Your task to perform on an android device: Search for "razer nari" on costco, select the first entry, and add it to the cart. Image 0: 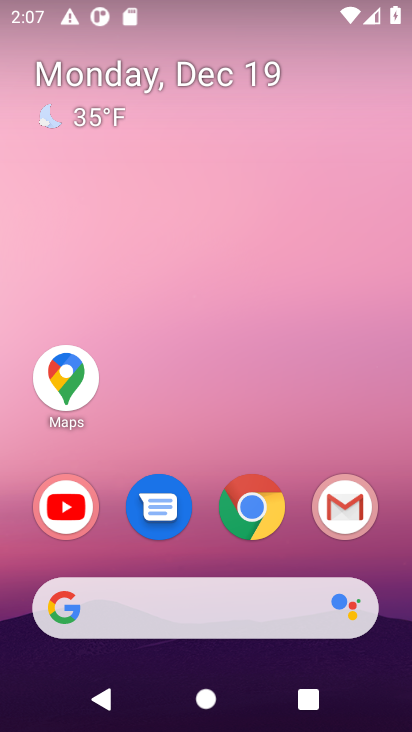
Step 0: click (253, 516)
Your task to perform on an android device: Search for "razer nari" on costco, select the first entry, and add it to the cart. Image 1: 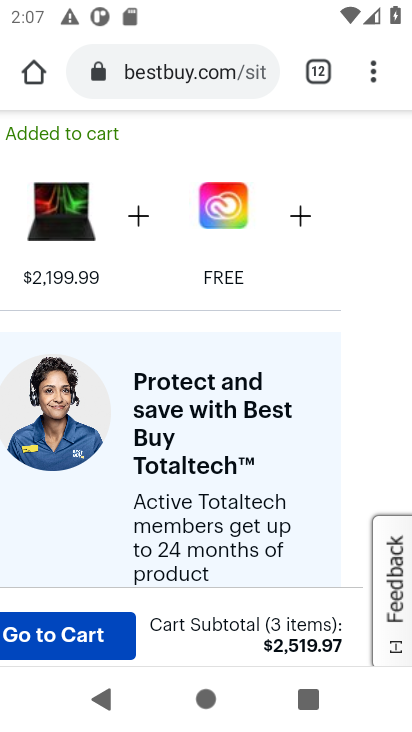
Step 1: click (189, 74)
Your task to perform on an android device: Search for "razer nari" on costco, select the first entry, and add it to the cart. Image 2: 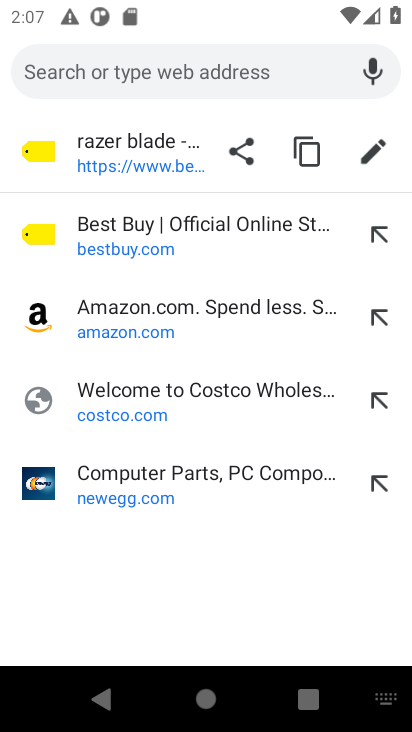
Step 2: click (84, 397)
Your task to perform on an android device: Search for "razer nari" on costco, select the first entry, and add it to the cart. Image 3: 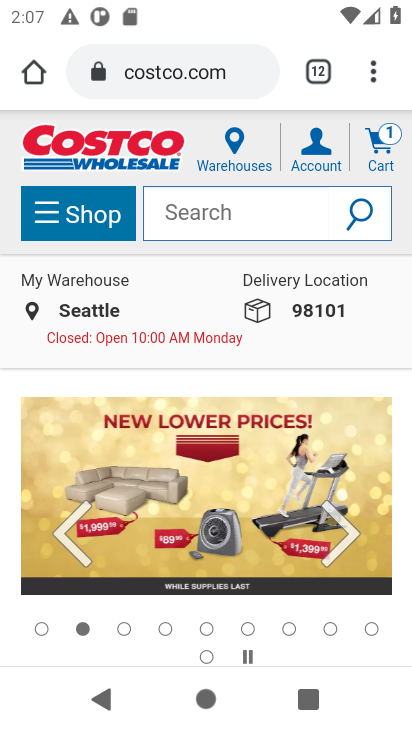
Step 3: click (168, 207)
Your task to perform on an android device: Search for "razer nari" on costco, select the first entry, and add it to the cart. Image 4: 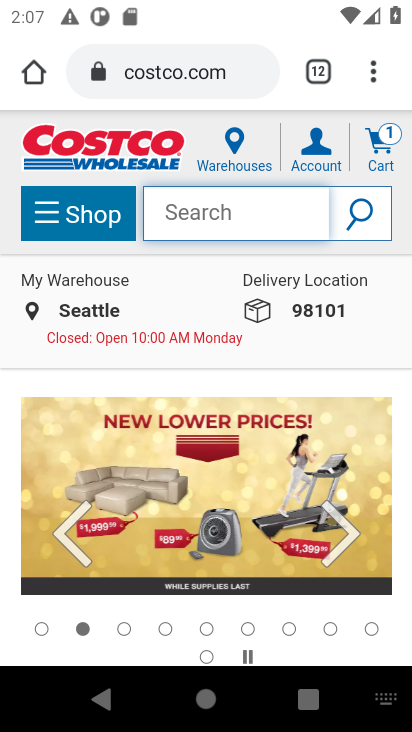
Step 4: type "razer nari"
Your task to perform on an android device: Search for "razer nari" on costco, select the first entry, and add it to the cart. Image 5: 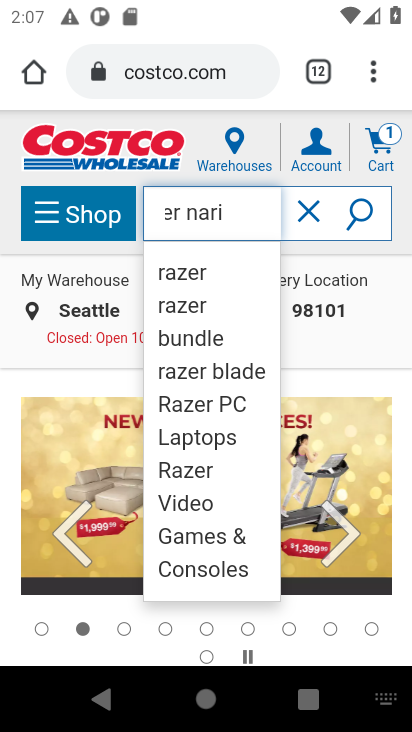
Step 5: click (365, 206)
Your task to perform on an android device: Search for "razer nari" on costco, select the first entry, and add it to the cart. Image 6: 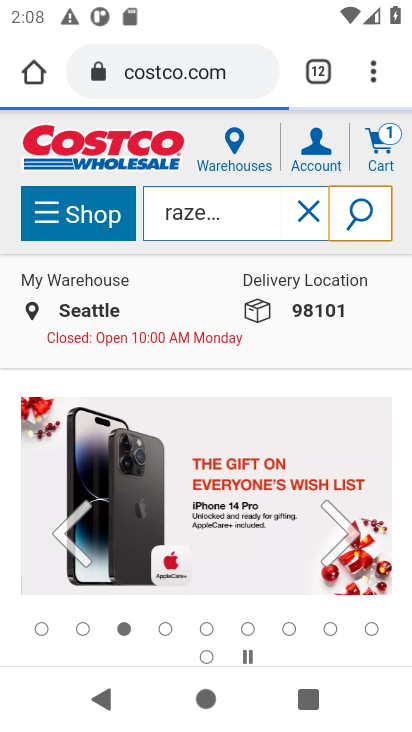
Step 6: task complete